Your task to perform on an android device: Open Android settings Image 0: 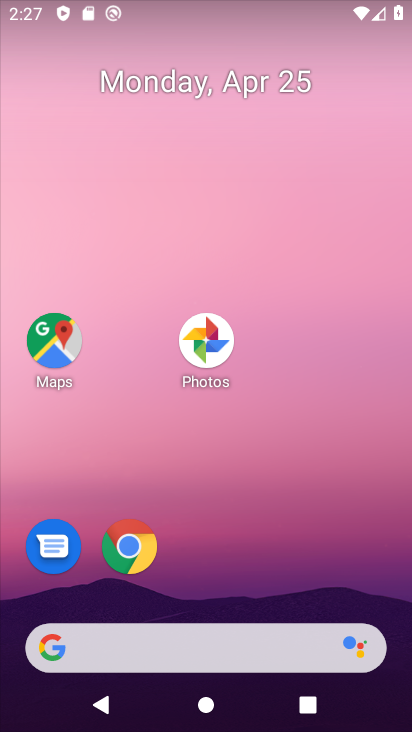
Step 0: drag from (259, 583) to (300, 222)
Your task to perform on an android device: Open Android settings Image 1: 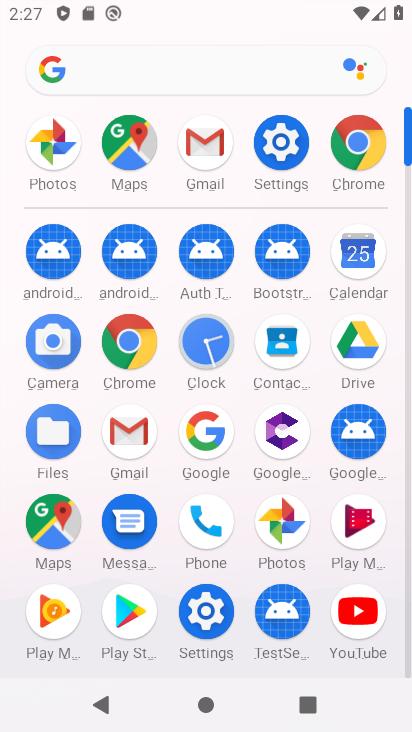
Step 1: click (282, 136)
Your task to perform on an android device: Open Android settings Image 2: 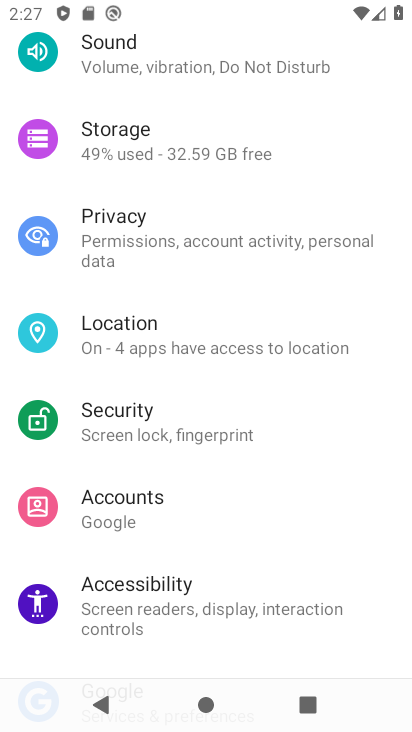
Step 2: task complete